Your task to perform on an android device: open sync settings in chrome Image 0: 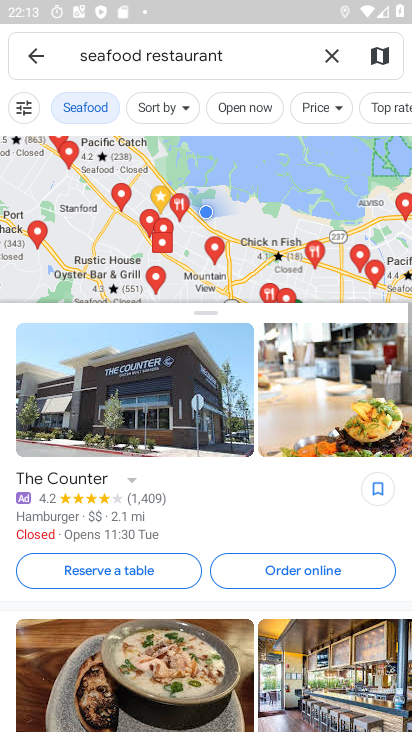
Step 0: press home button
Your task to perform on an android device: open sync settings in chrome Image 1: 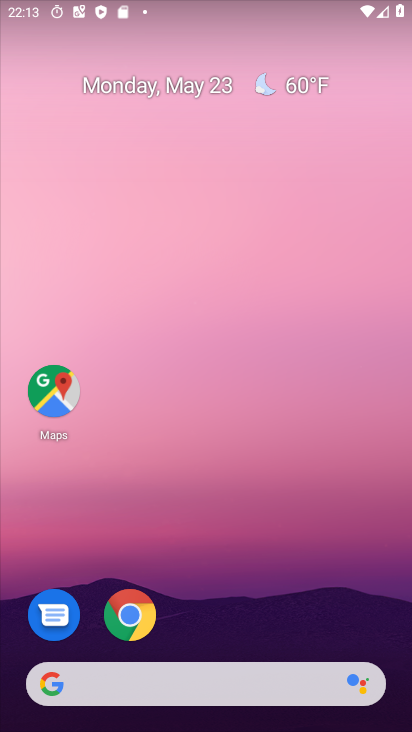
Step 1: click (135, 614)
Your task to perform on an android device: open sync settings in chrome Image 2: 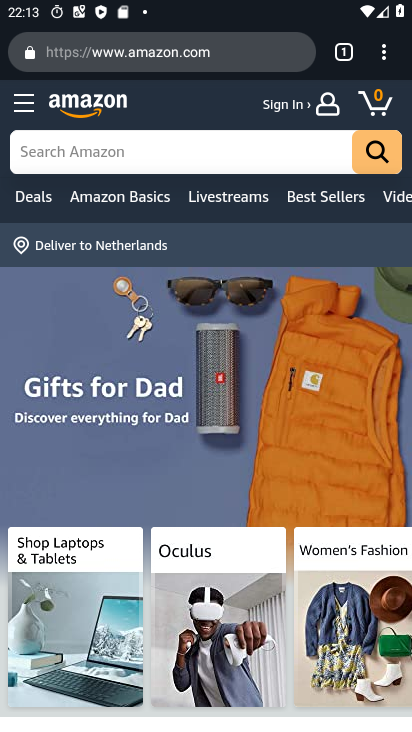
Step 2: click (377, 58)
Your task to perform on an android device: open sync settings in chrome Image 3: 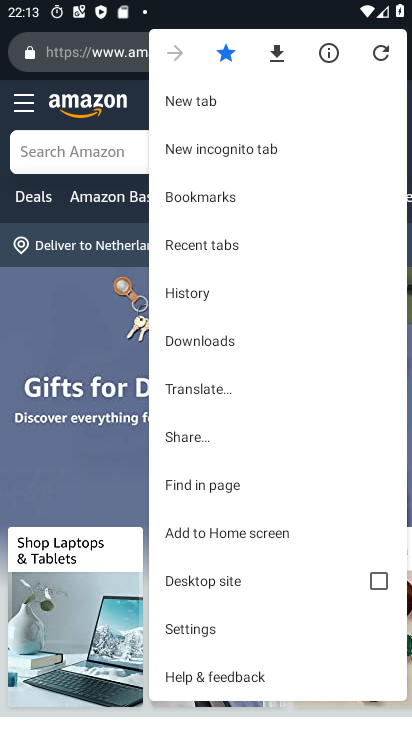
Step 3: click (243, 627)
Your task to perform on an android device: open sync settings in chrome Image 4: 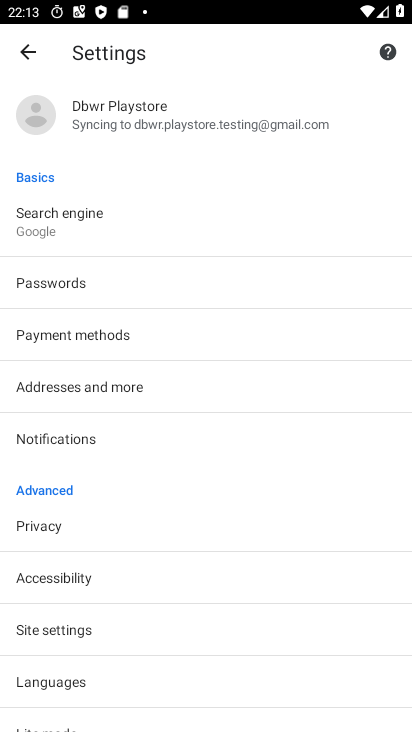
Step 4: drag from (200, 613) to (209, 401)
Your task to perform on an android device: open sync settings in chrome Image 5: 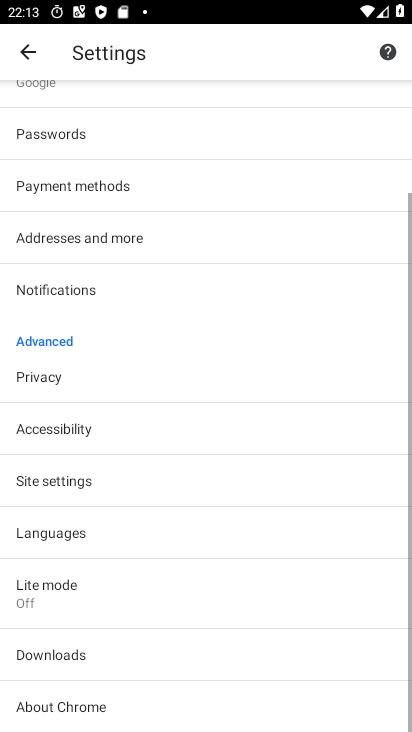
Step 5: click (81, 484)
Your task to perform on an android device: open sync settings in chrome Image 6: 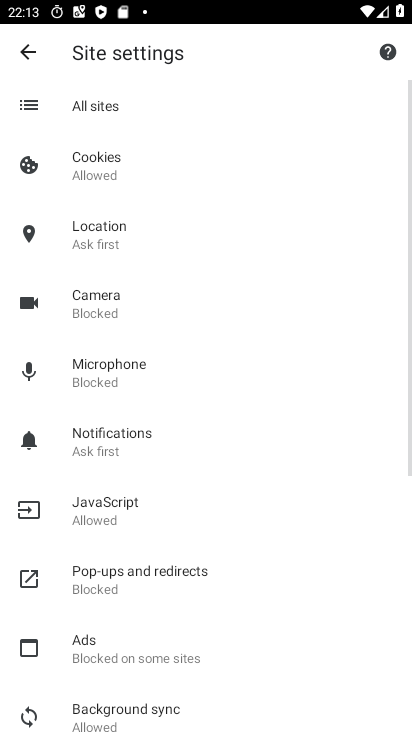
Step 6: click (159, 700)
Your task to perform on an android device: open sync settings in chrome Image 7: 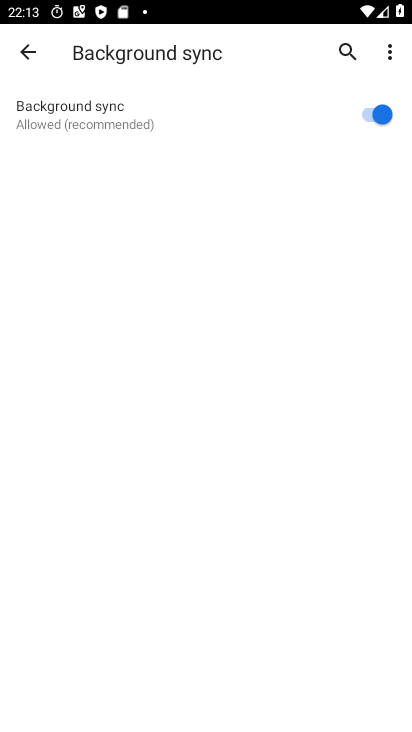
Step 7: task complete